Your task to perform on an android device: Open Google Chrome and click the shortcut for Amazon.com Image 0: 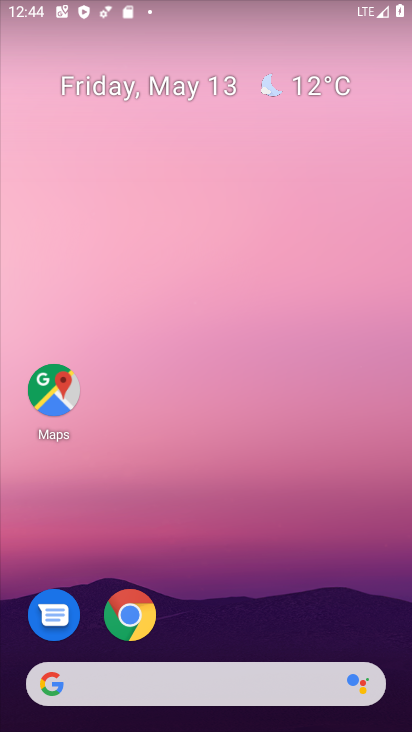
Step 0: click (138, 613)
Your task to perform on an android device: Open Google Chrome and click the shortcut for Amazon.com Image 1: 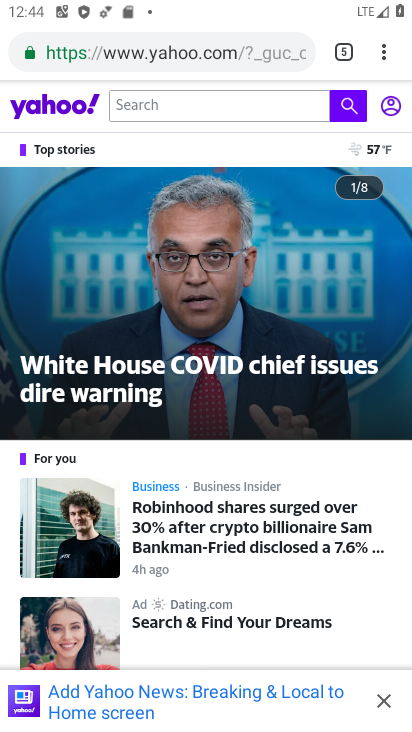
Step 1: click (341, 59)
Your task to perform on an android device: Open Google Chrome and click the shortcut for Amazon.com Image 2: 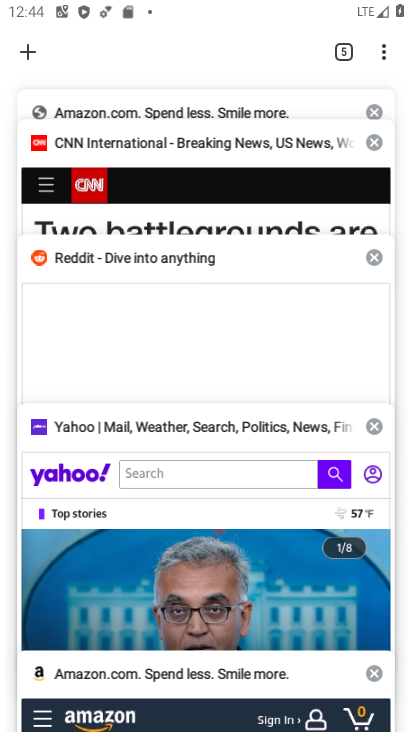
Step 2: click (89, 110)
Your task to perform on an android device: Open Google Chrome and click the shortcut for Amazon.com Image 3: 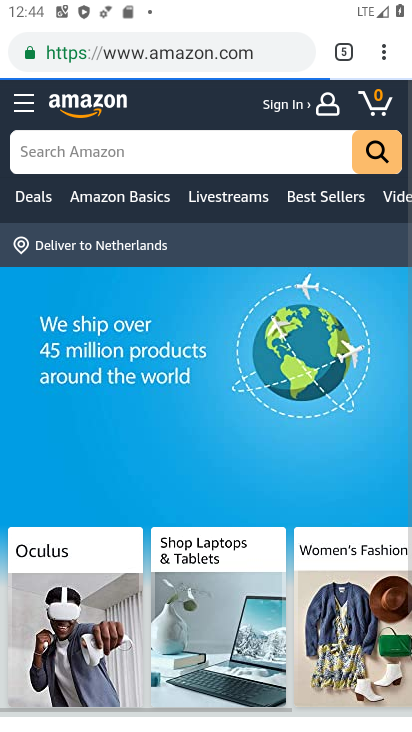
Step 3: task complete